Your task to perform on an android device: turn notification dots off Image 0: 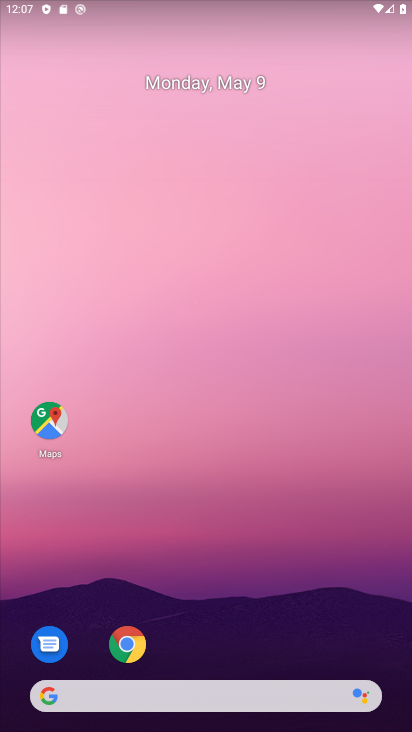
Step 0: drag from (309, 586) to (43, 101)
Your task to perform on an android device: turn notification dots off Image 1: 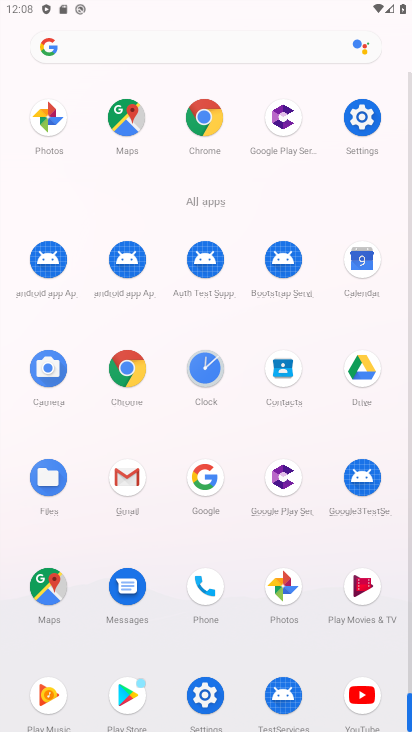
Step 1: click (359, 119)
Your task to perform on an android device: turn notification dots off Image 2: 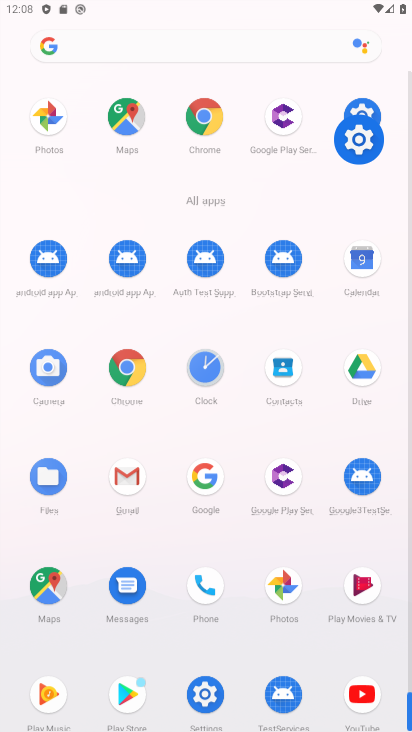
Step 2: click (359, 119)
Your task to perform on an android device: turn notification dots off Image 3: 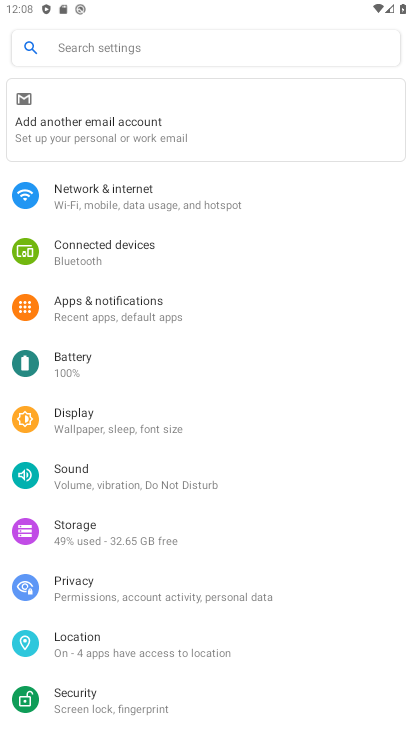
Step 3: click (93, 307)
Your task to perform on an android device: turn notification dots off Image 4: 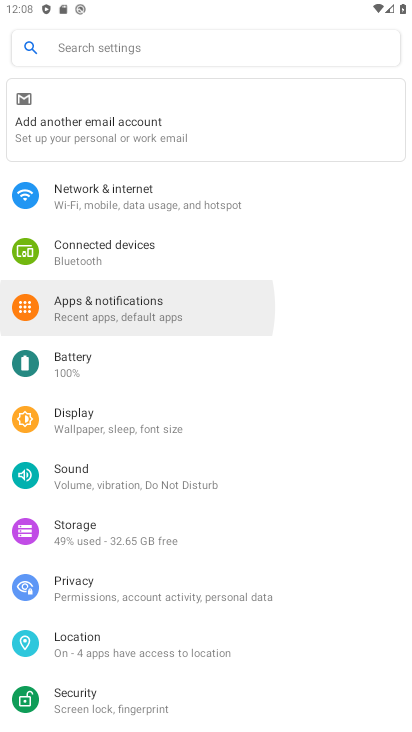
Step 4: click (93, 307)
Your task to perform on an android device: turn notification dots off Image 5: 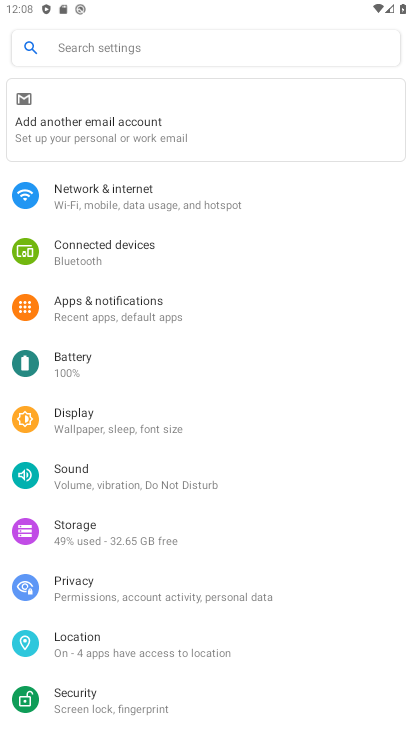
Step 5: click (93, 307)
Your task to perform on an android device: turn notification dots off Image 6: 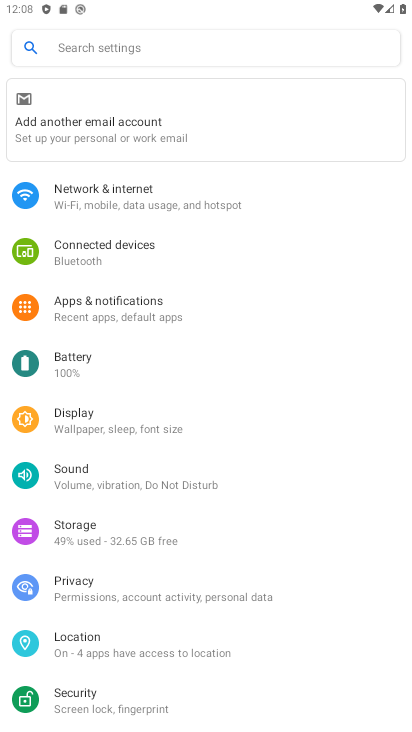
Step 6: click (93, 307)
Your task to perform on an android device: turn notification dots off Image 7: 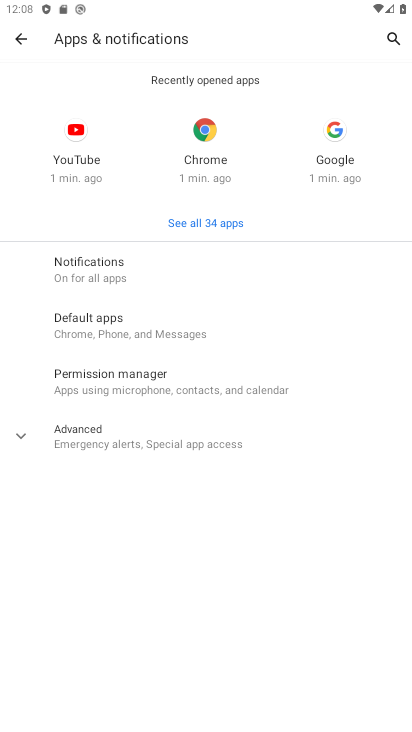
Step 7: click (113, 262)
Your task to perform on an android device: turn notification dots off Image 8: 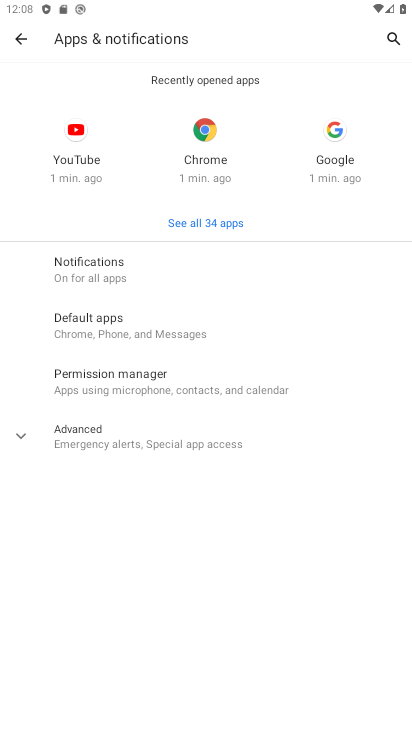
Step 8: click (113, 262)
Your task to perform on an android device: turn notification dots off Image 9: 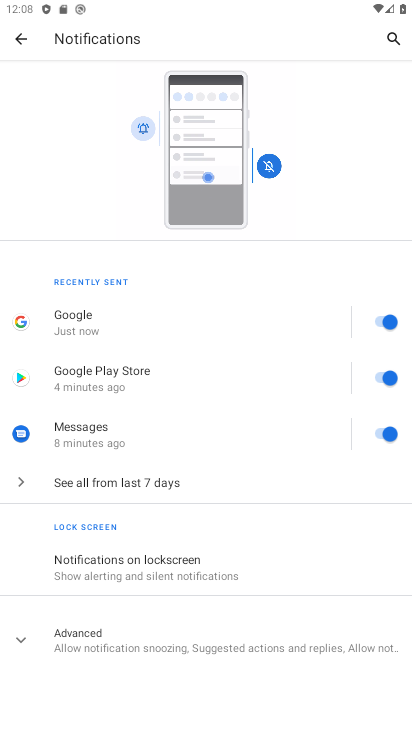
Step 9: drag from (214, 516) to (131, 125)
Your task to perform on an android device: turn notification dots off Image 10: 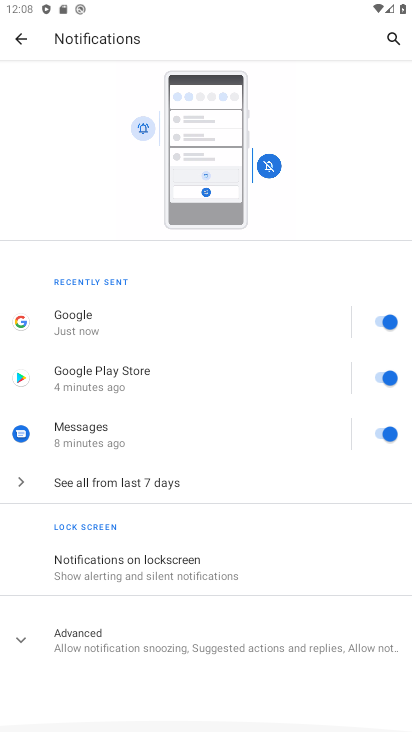
Step 10: drag from (164, 410) to (164, 166)
Your task to perform on an android device: turn notification dots off Image 11: 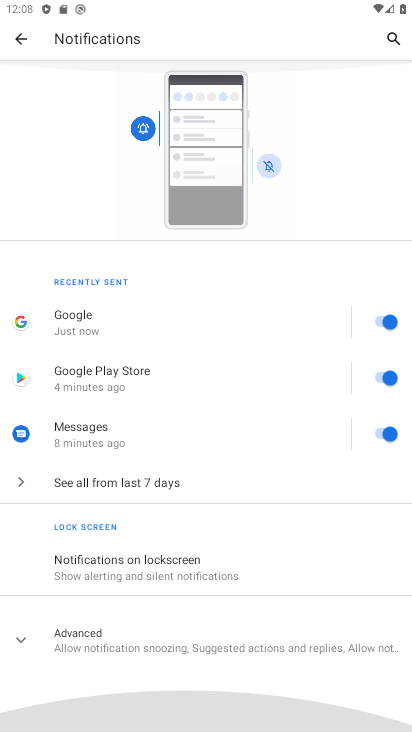
Step 11: drag from (102, 561) to (99, 183)
Your task to perform on an android device: turn notification dots off Image 12: 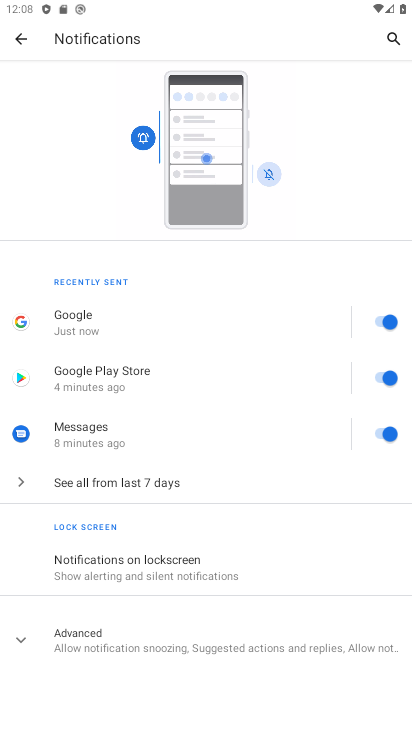
Step 12: click (97, 644)
Your task to perform on an android device: turn notification dots off Image 13: 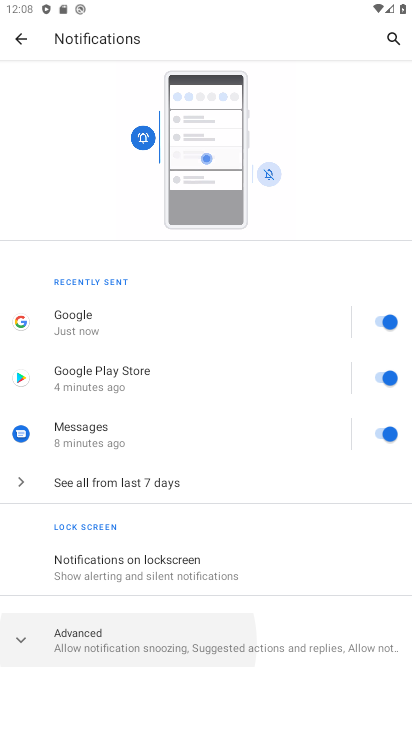
Step 13: click (97, 644)
Your task to perform on an android device: turn notification dots off Image 14: 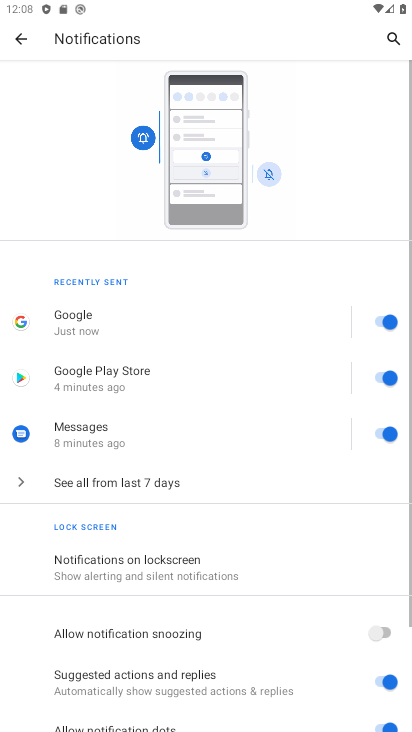
Step 14: drag from (221, 536) to (138, 134)
Your task to perform on an android device: turn notification dots off Image 15: 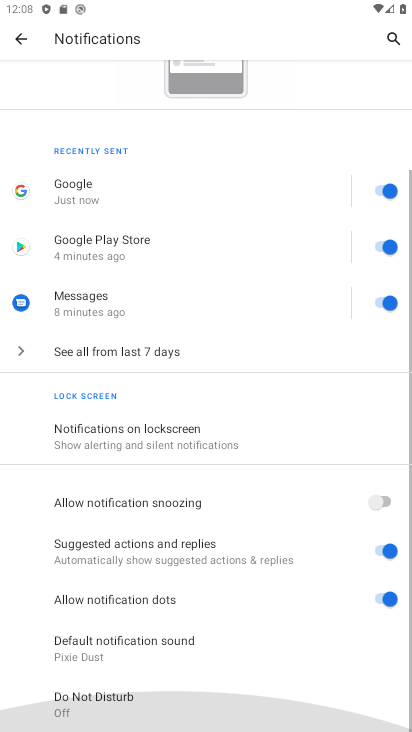
Step 15: drag from (255, 576) to (172, 321)
Your task to perform on an android device: turn notification dots off Image 16: 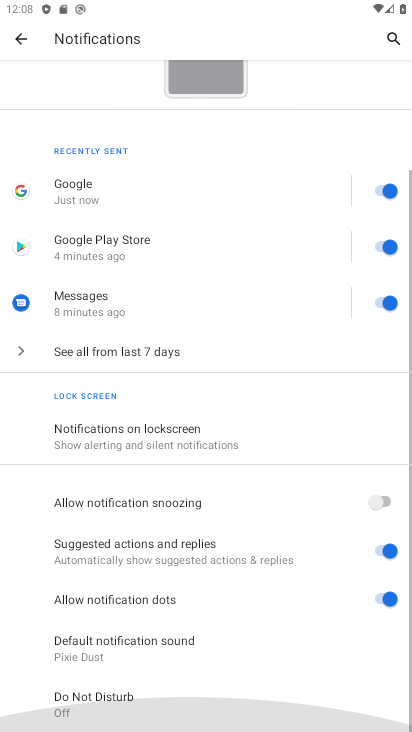
Step 16: drag from (234, 642) to (183, 136)
Your task to perform on an android device: turn notification dots off Image 17: 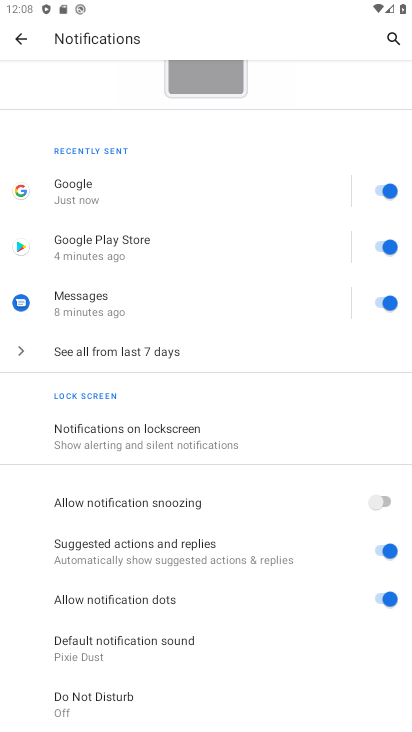
Step 17: click (381, 596)
Your task to perform on an android device: turn notification dots off Image 18: 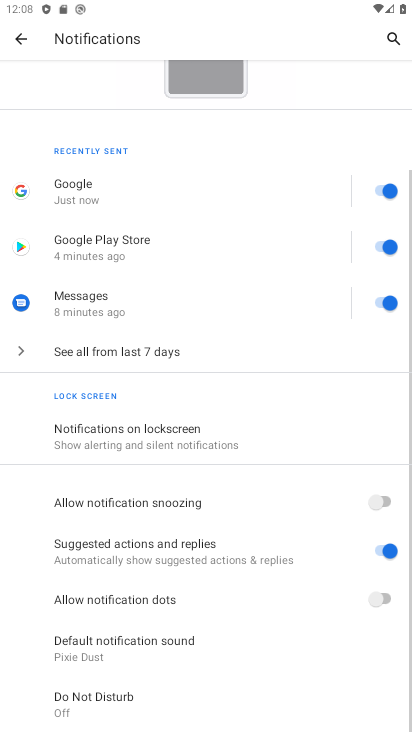
Step 18: task complete